Your task to perform on an android device: make emails show in primary in the gmail app Image 0: 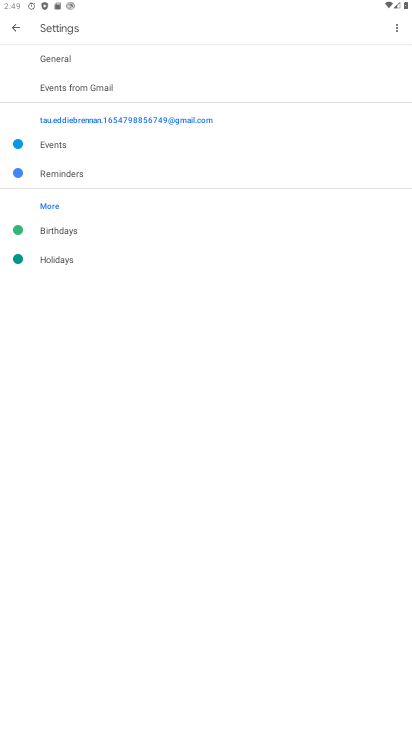
Step 0: press home button
Your task to perform on an android device: make emails show in primary in the gmail app Image 1: 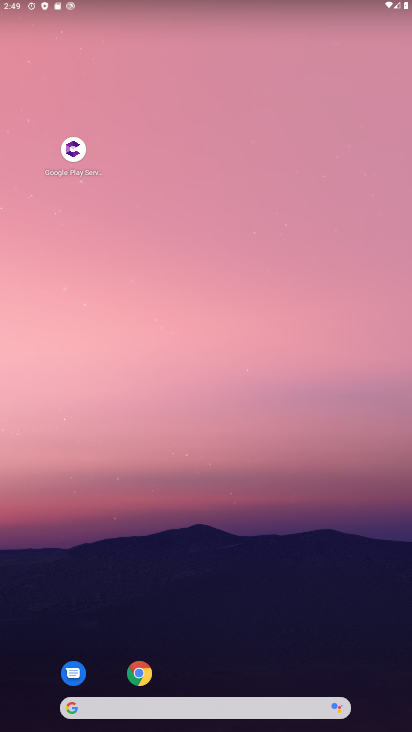
Step 1: drag from (21, 683) to (208, 0)
Your task to perform on an android device: make emails show in primary in the gmail app Image 2: 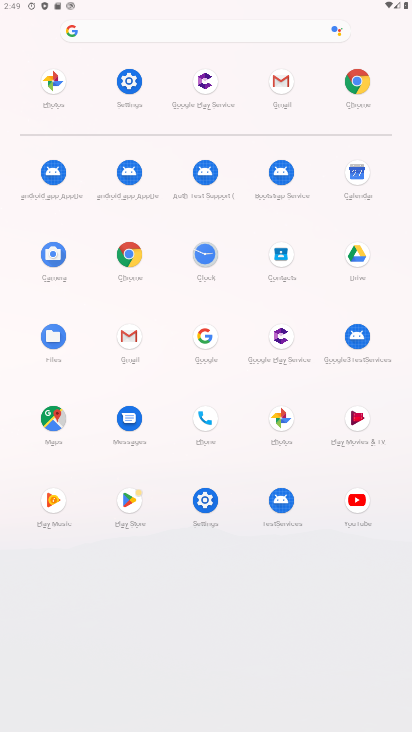
Step 2: click (130, 351)
Your task to perform on an android device: make emails show in primary in the gmail app Image 3: 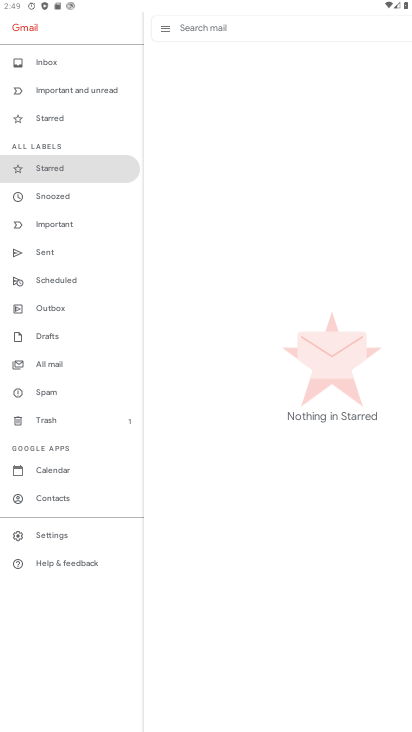
Step 3: click (49, 66)
Your task to perform on an android device: make emails show in primary in the gmail app Image 4: 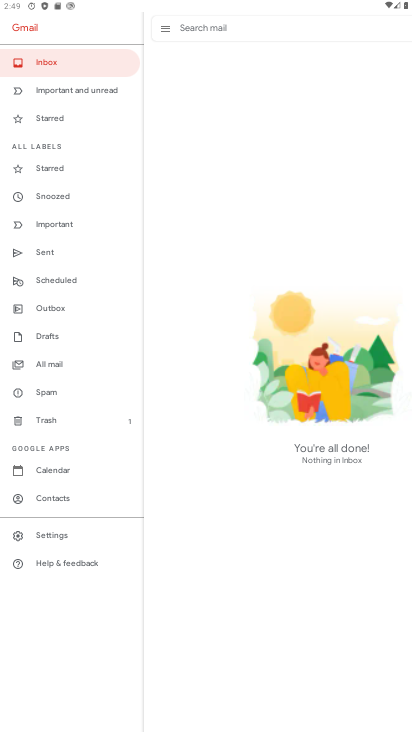
Step 4: task complete